Your task to perform on an android device: visit the assistant section in the google photos Image 0: 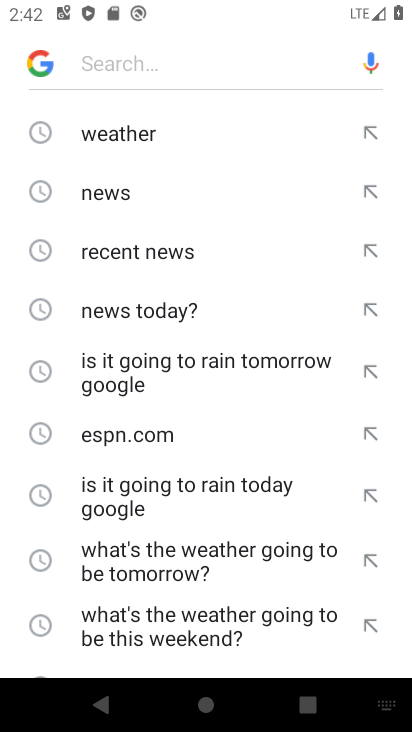
Step 0: press home button
Your task to perform on an android device: visit the assistant section in the google photos Image 1: 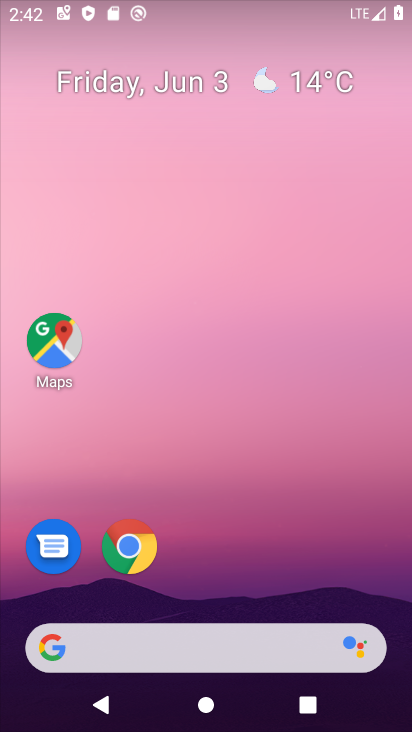
Step 1: drag from (354, 562) to (372, 18)
Your task to perform on an android device: visit the assistant section in the google photos Image 2: 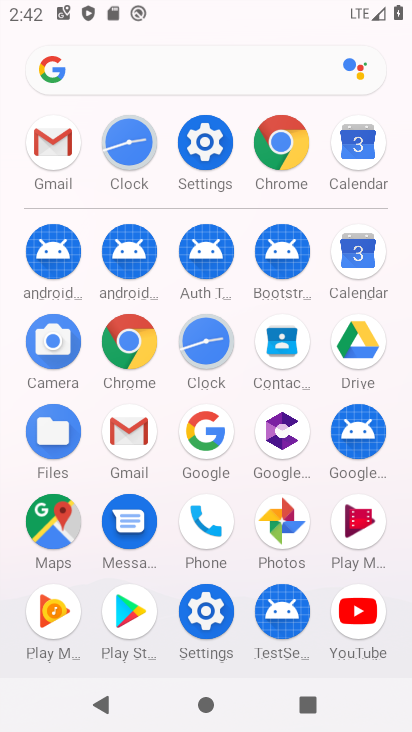
Step 2: click (280, 531)
Your task to perform on an android device: visit the assistant section in the google photos Image 3: 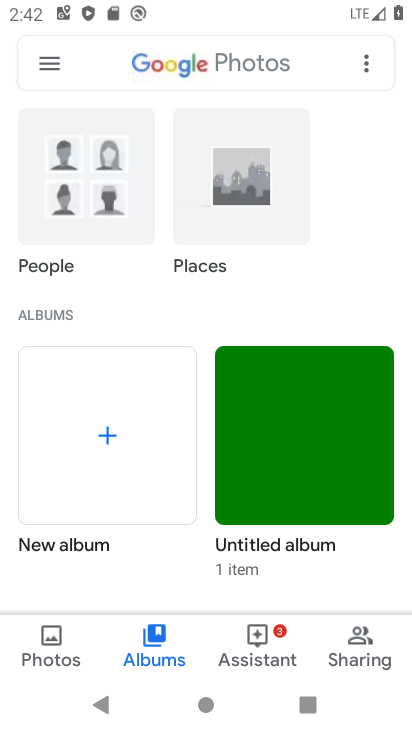
Step 3: click (234, 647)
Your task to perform on an android device: visit the assistant section in the google photos Image 4: 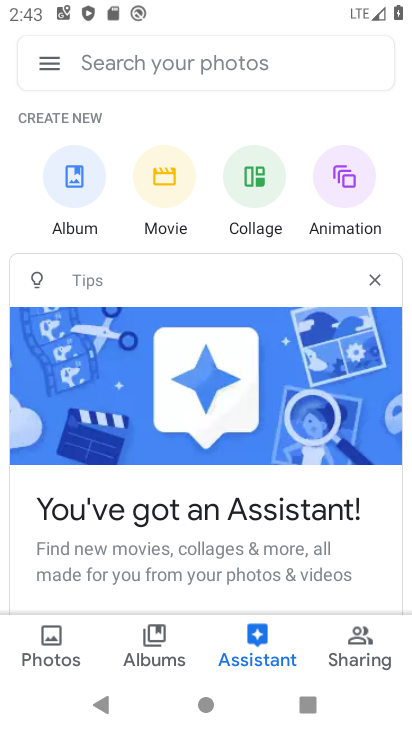
Step 4: task complete